Your task to perform on an android device: Turn on the flashlight Image 0: 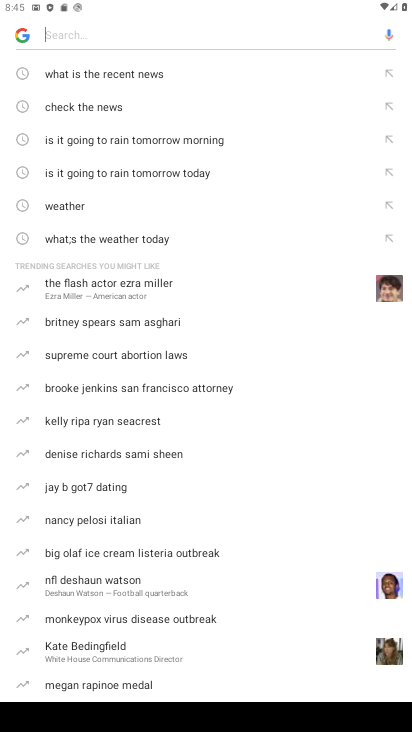
Step 0: press home button
Your task to perform on an android device: Turn on the flashlight Image 1: 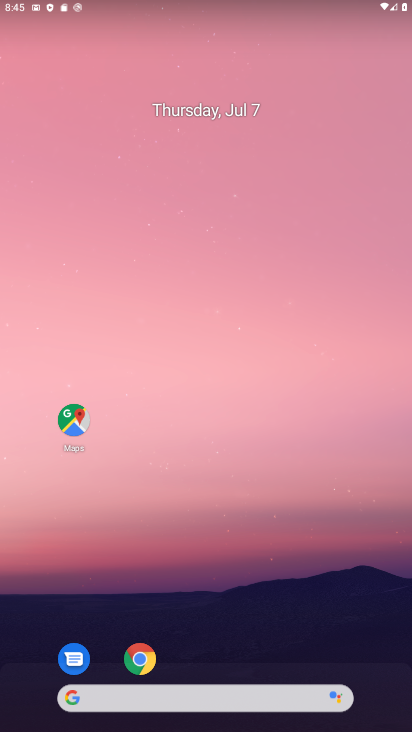
Step 1: drag from (223, 640) to (290, 28)
Your task to perform on an android device: Turn on the flashlight Image 2: 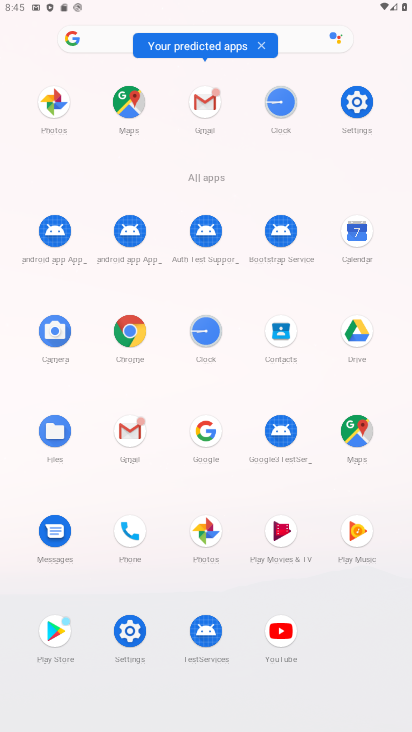
Step 2: click (362, 113)
Your task to perform on an android device: Turn on the flashlight Image 3: 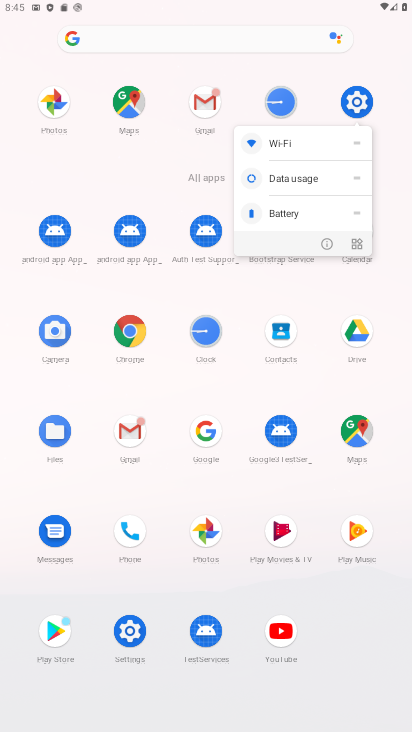
Step 3: click (359, 105)
Your task to perform on an android device: Turn on the flashlight Image 4: 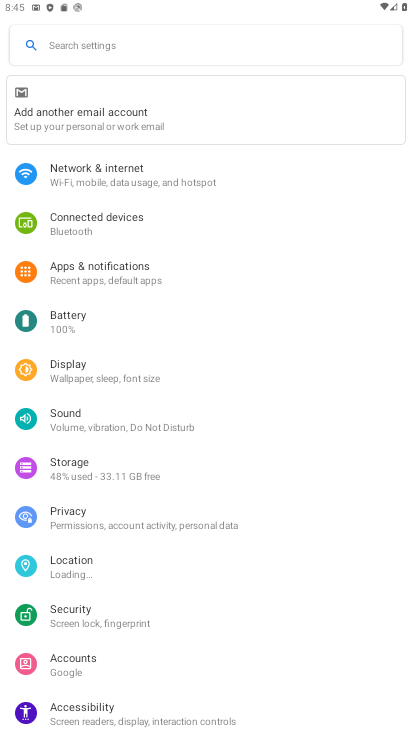
Step 4: click (211, 46)
Your task to perform on an android device: Turn on the flashlight Image 5: 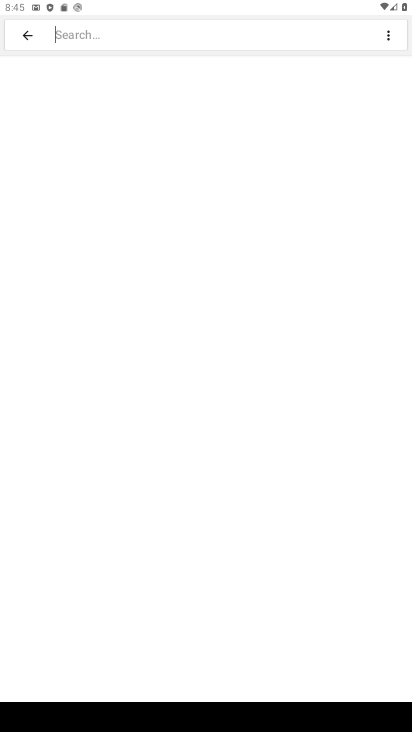
Step 5: type "flashlight"
Your task to perform on an android device: Turn on the flashlight Image 6: 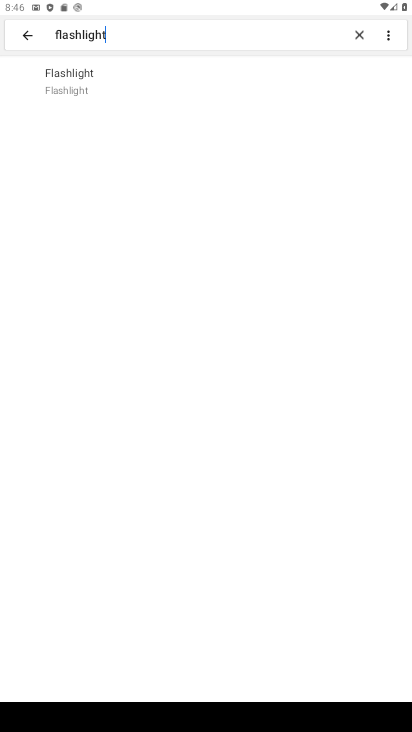
Step 6: click (102, 84)
Your task to perform on an android device: Turn on the flashlight Image 7: 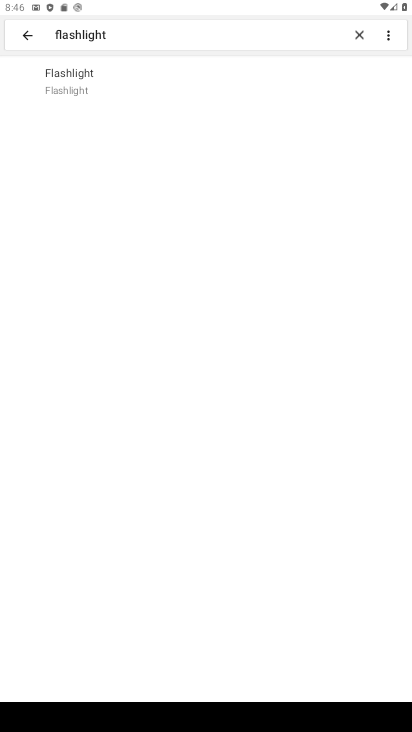
Step 7: click (89, 87)
Your task to perform on an android device: Turn on the flashlight Image 8: 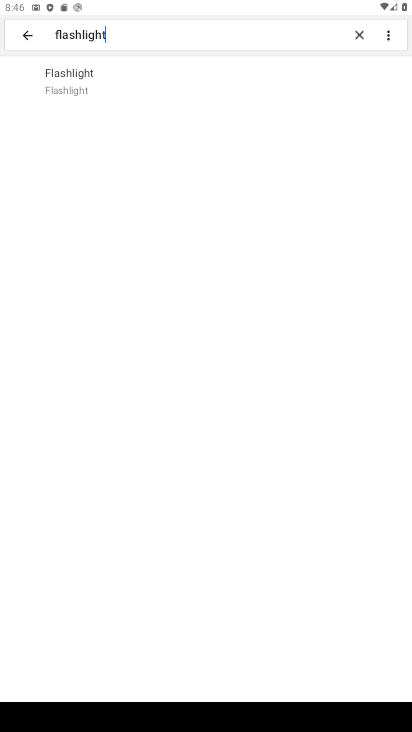
Step 8: task complete